Your task to perform on an android device: Is it going to rain tomorrow? Image 0: 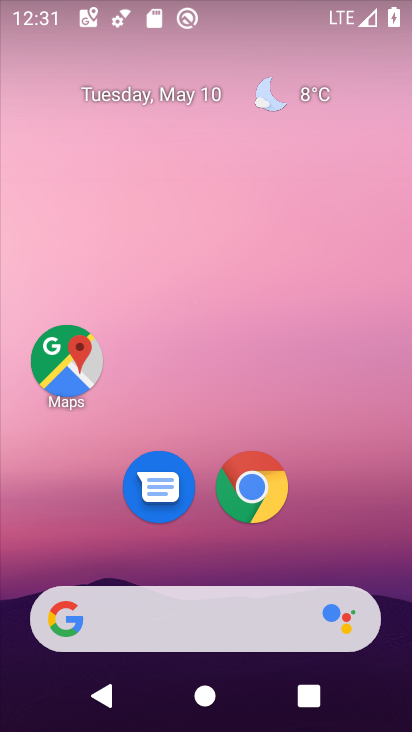
Step 0: drag from (211, 557) to (266, 12)
Your task to perform on an android device: Is it going to rain tomorrow? Image 1: 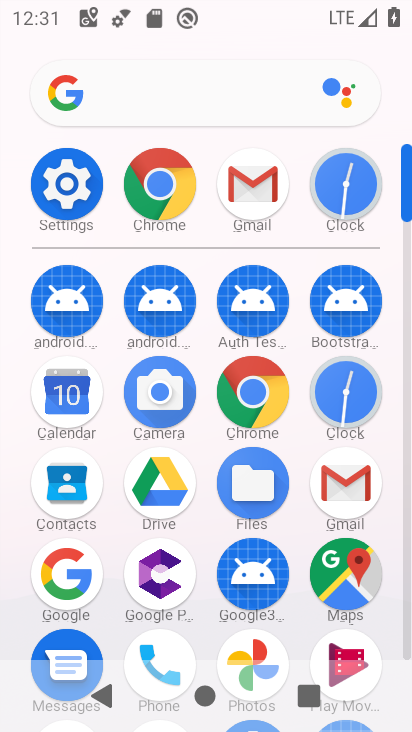
Step 1: press home button
Your task to perform on an android device: Is it going to rain tomorrow? Image 2: 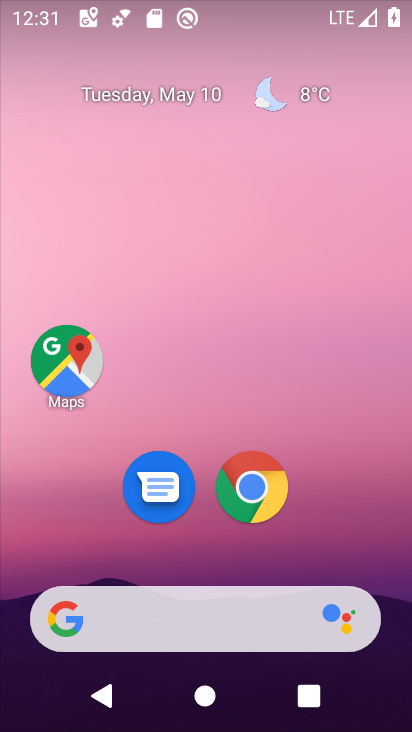
Step 2: click (317, 91)
Your task to perform on an android device: Is it going to rain tomorrow? Image 3: 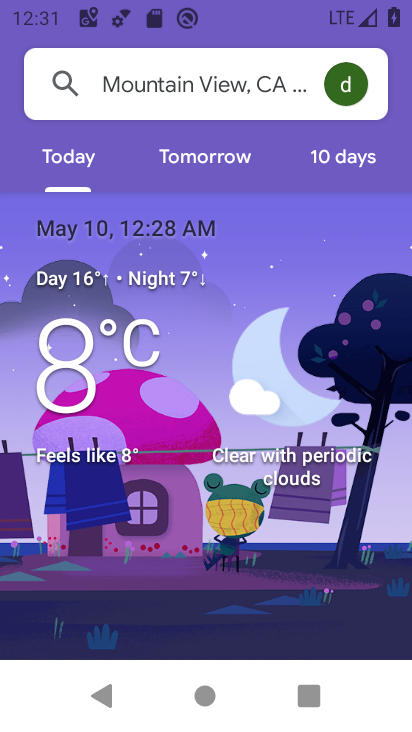
Step 3: task complete